Your task to perform on an android device: add a contact Image 0: 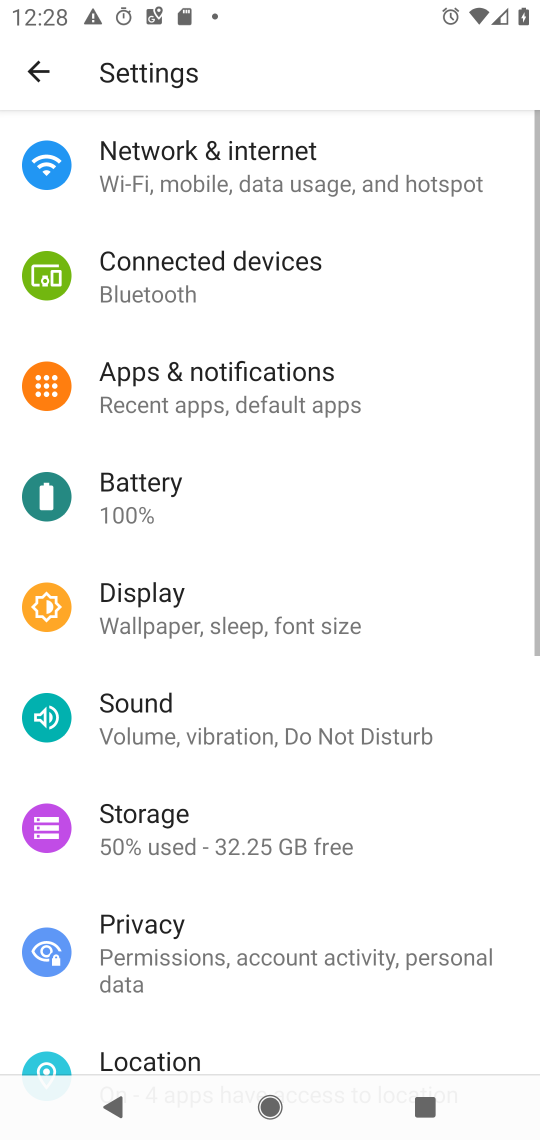
Step 0: press home button
Your task to perform on an android device: add a contact Image 1: 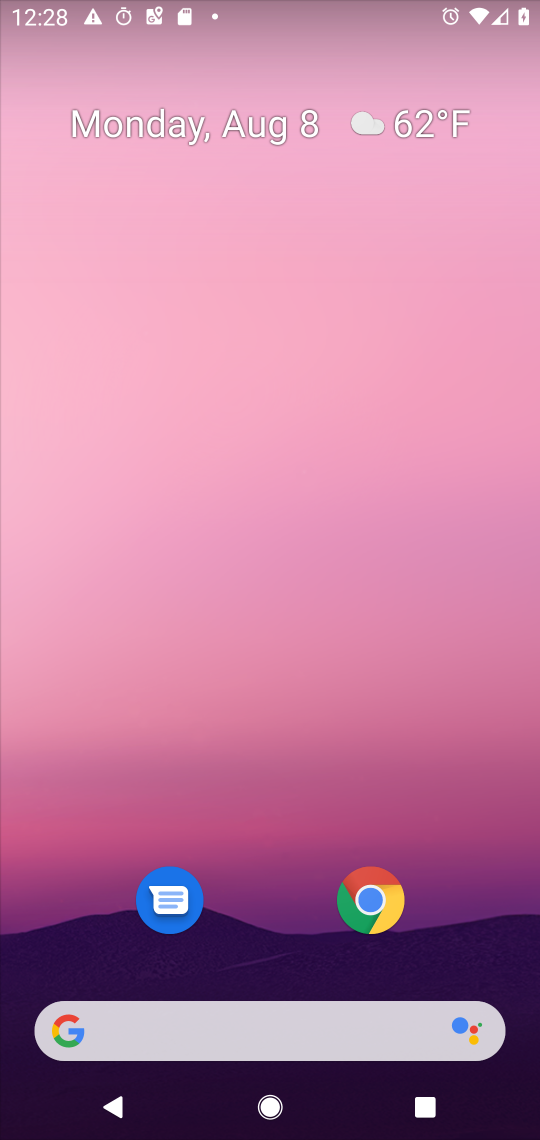
Step 1: drag from (276, 943) to (258, 266)
Your task to perform on an android device: add a contact Image 2: 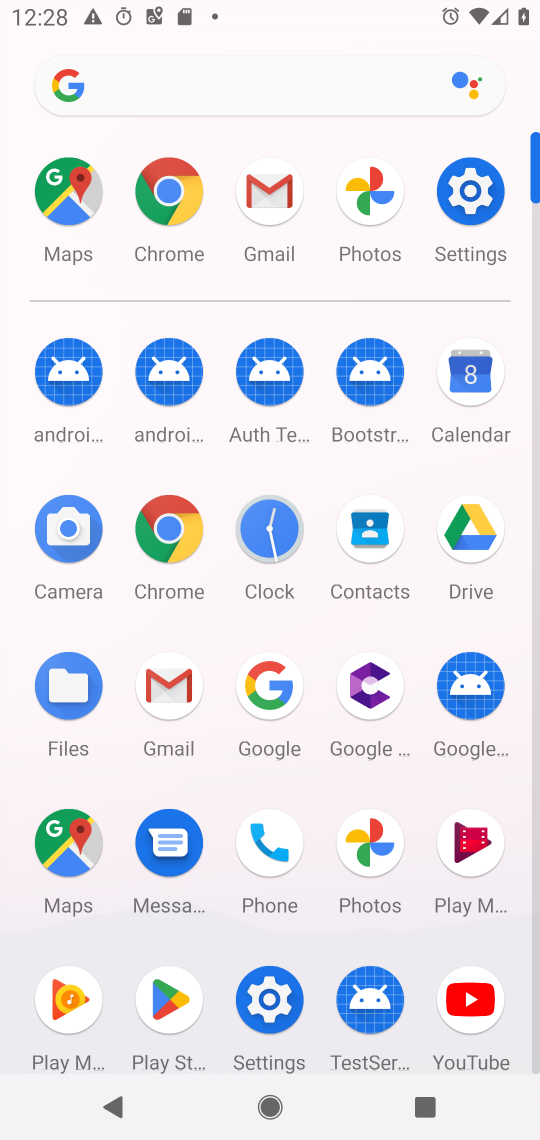
Step 2: click (366, 524)
Your task to perform on an android device: add a contact Image 3: 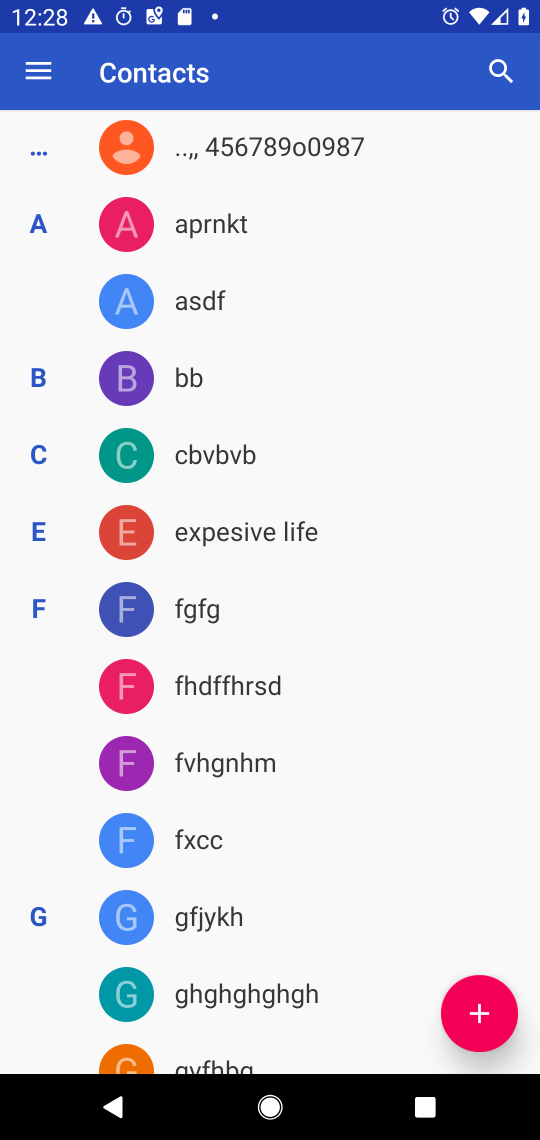
Step 3: click (479, 1008)
Your task to perform on an android device: add a contact Image 4: 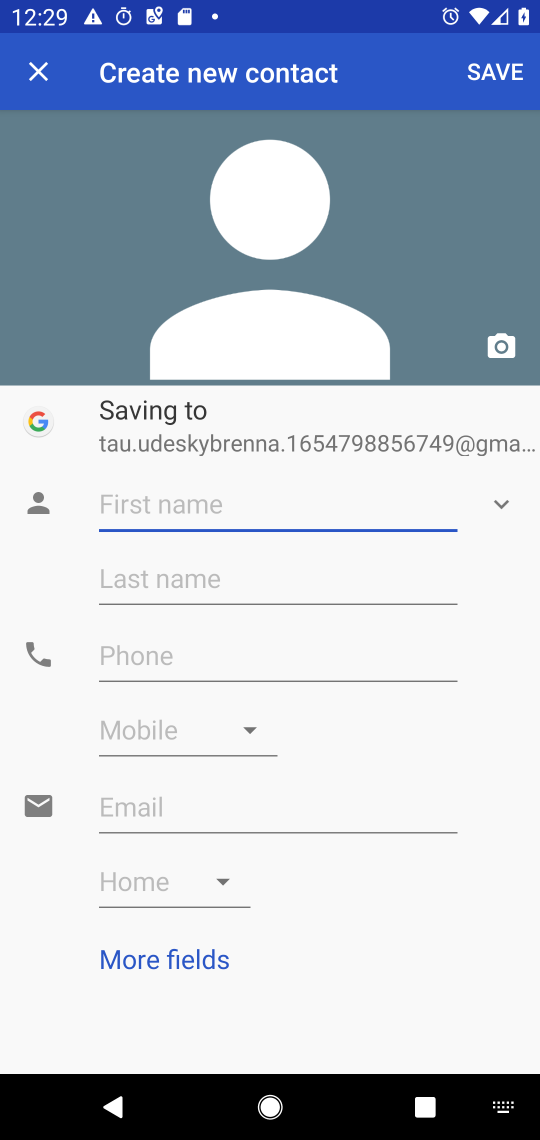
Step 4: press back button
Your task to perform on an android device: add a contact Image 5: 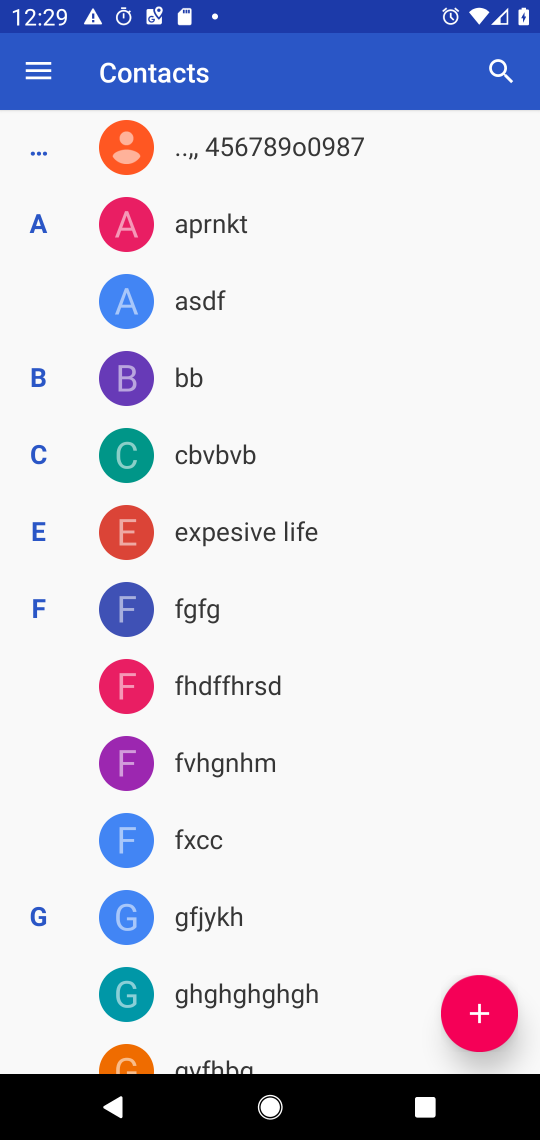
Step 5: click (514, 1076)
Your task to perform on an android device: add a contact Image 6: 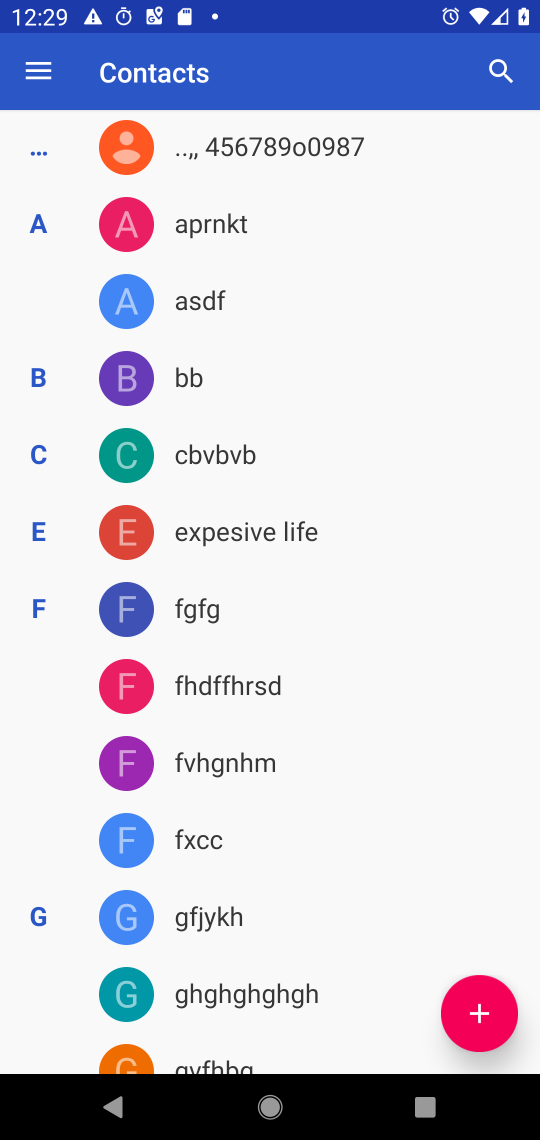
Step 6: click (476, 1005)
Your task to perform on an android device: add a contact Image 7: 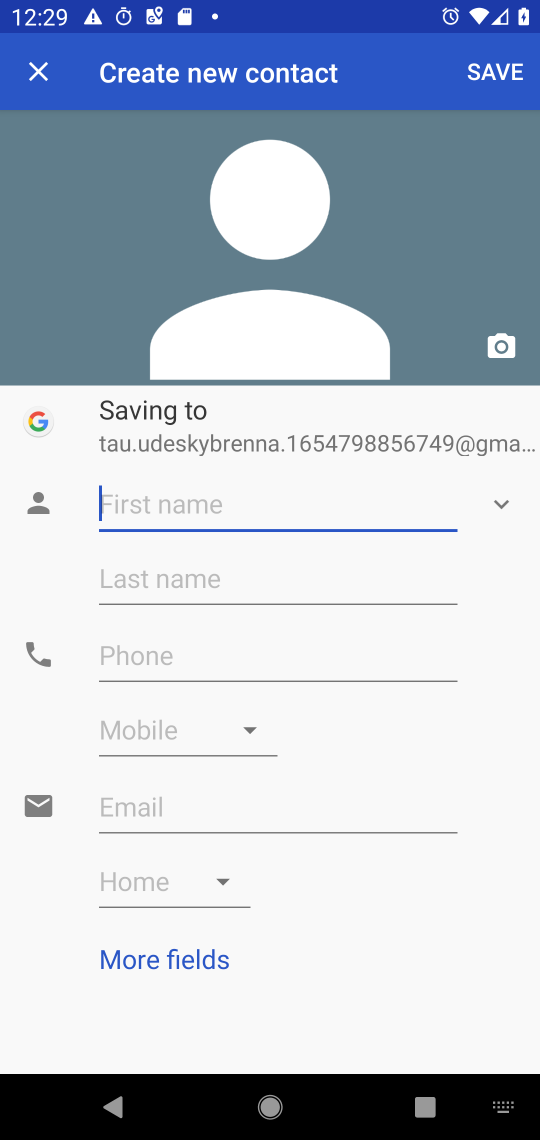
Step 7: type "hgtdtgh"
Your task to perform on an android device: add a contact Image 8: 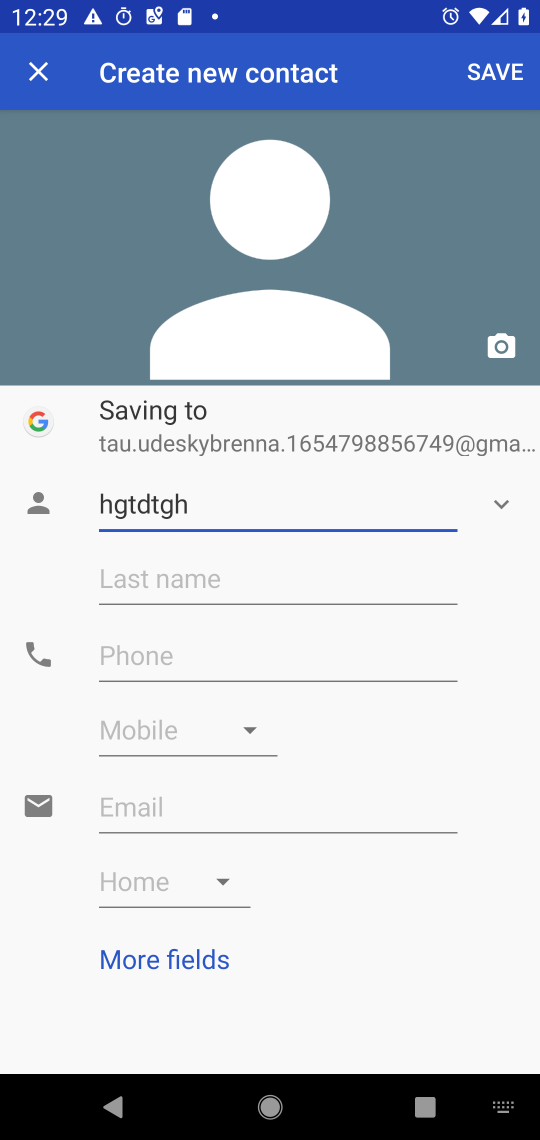
Step 8: click (487, 74)
Your task to perform on an android device: add a contact Image 9: 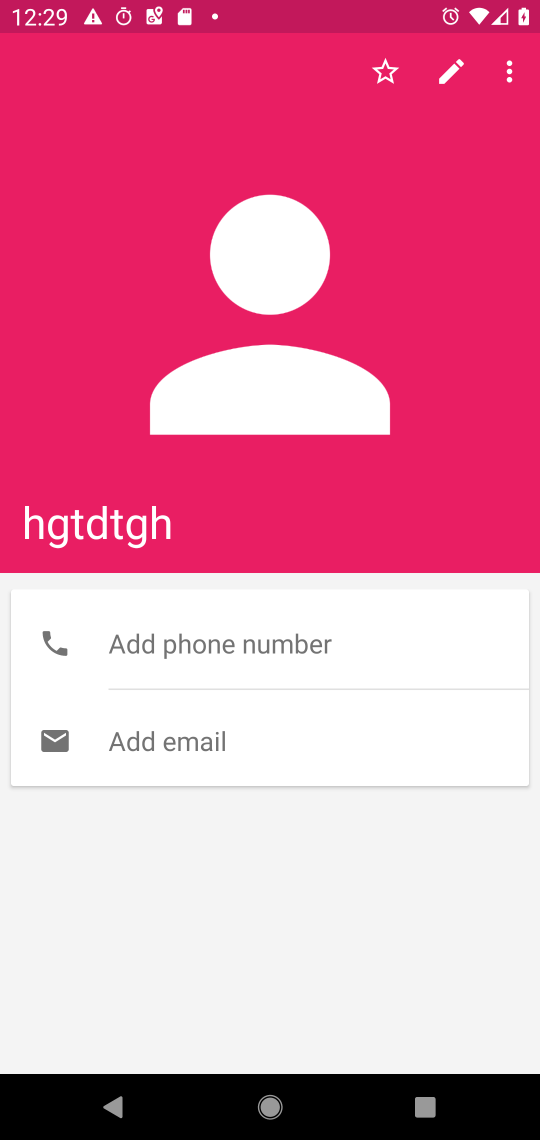
Step 9: task complete